Your task to perform on an android device: turn off data saver in the chrome app Image 0: 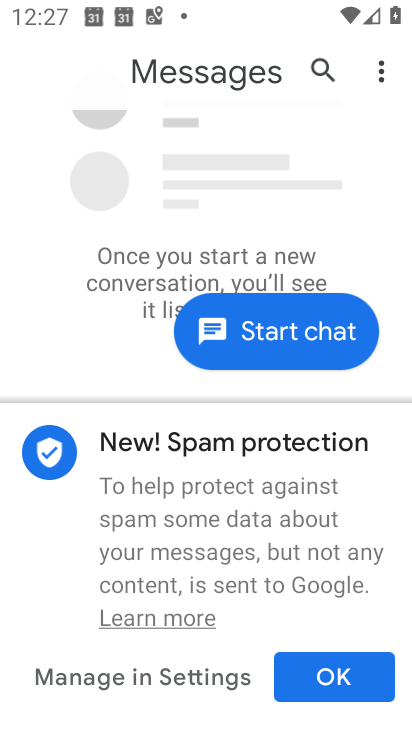
Step 0: press home button
Your task to perform on an android device: turn off data saver in the chrome app Image 1: 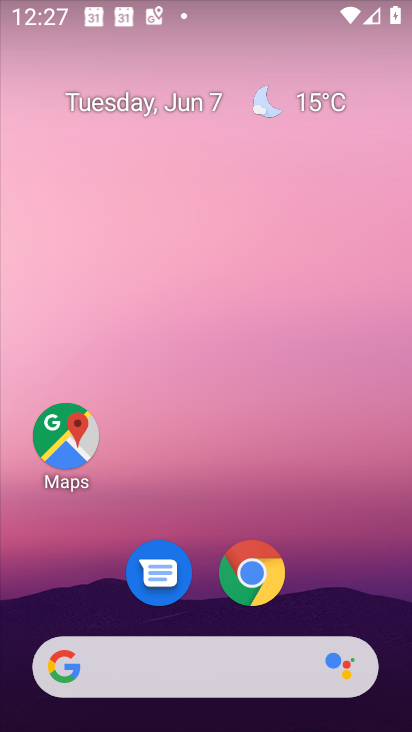
Step 1: click (263, 562)
Your task to perform on an android device: turn off data saver in the chrome app Image 2: 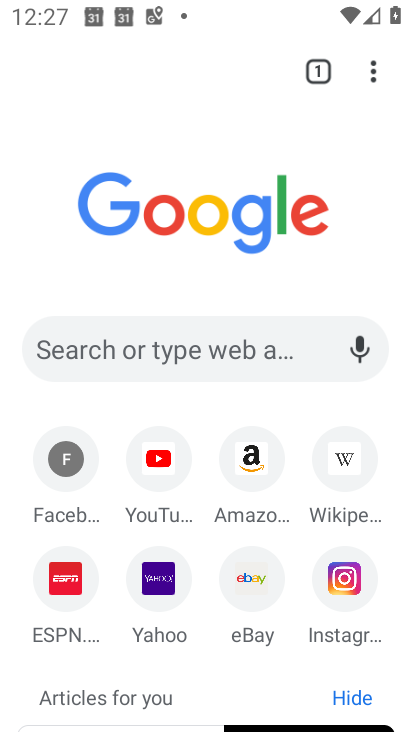
Step 2: click (379, 69)
Your task to perform on an android device: turn off data saver in the chrome app Image 3: 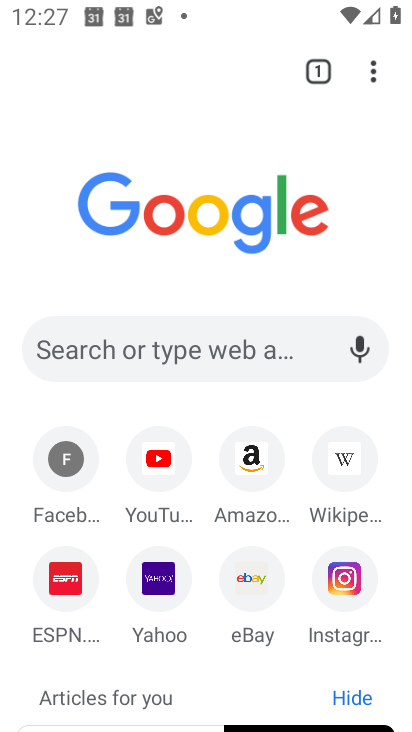
Step 3: drag from (378, 66) to (144, 600)
Your task to perform on an android device: turn off data saver in the chrome app Image 4: 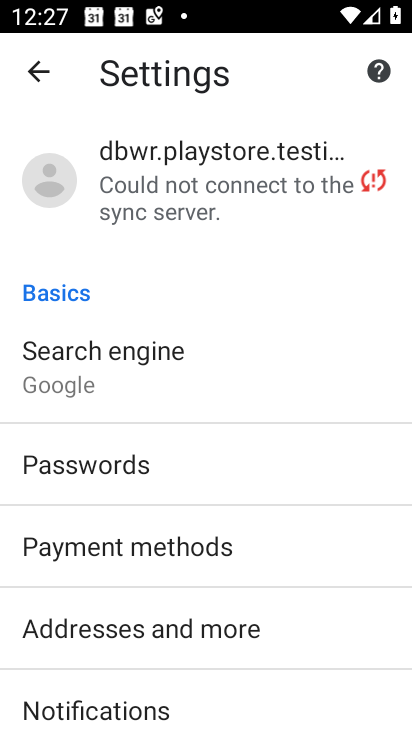
Step 4: drag from (306, 693) to (306, 140)
Your task to perform on an android device: turn off data saver in the chrome app Image 5: 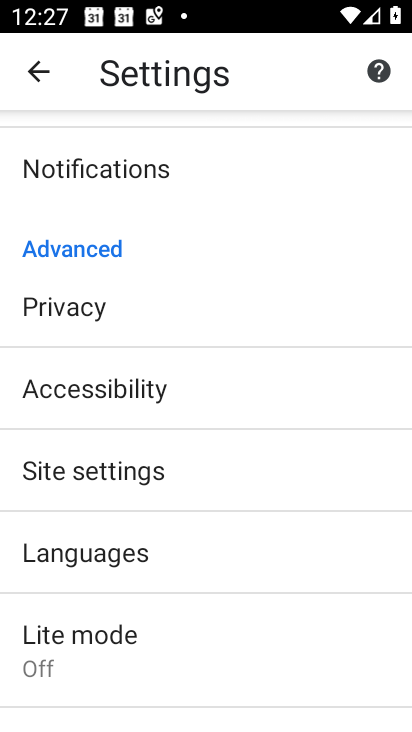
Step 5: click (180, 659)
Your task to perform on an android device: turn off data saver in the chrome app Image 6: 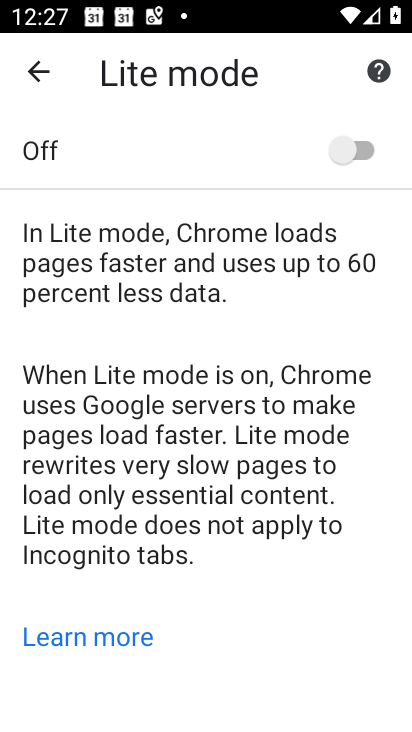
Step 6: task complete